Your task to perform on an android device: Go to calendar. Show me events next week Image 0: 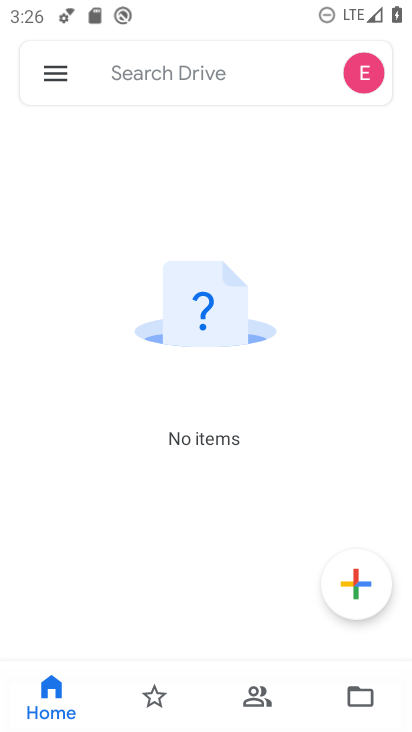
Step 0: press home button
Your task to perform on an android device: Go to calendar. Show me events next week Image 1: 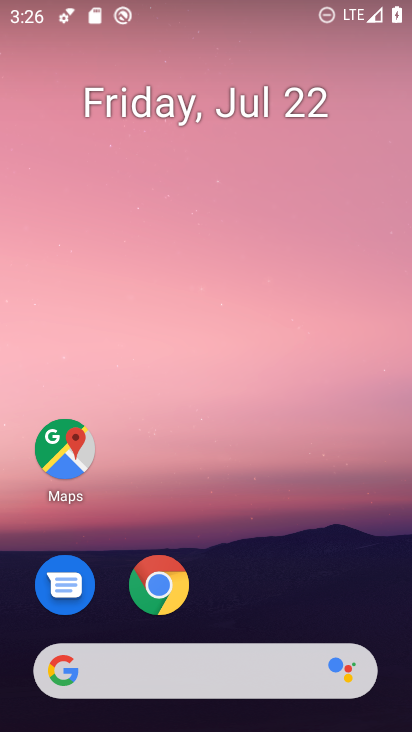
Step 1: drag from (286, 558) to (327, 76)
Your task to perform on an android device: Go to calendar. Show me events next week Image 2: 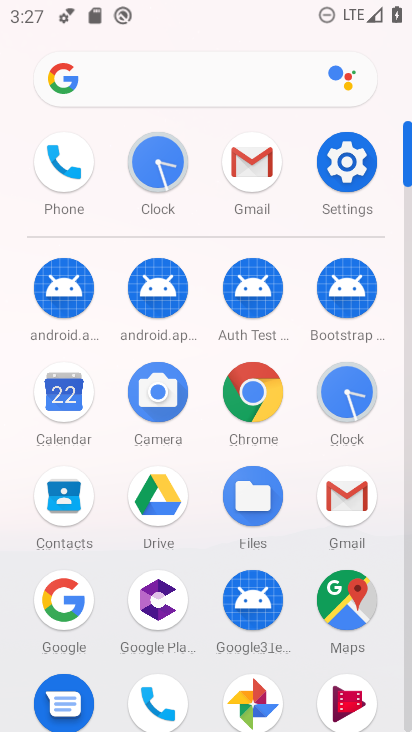
Step 2: click (68, 391)
Your task to perform on an android device: Go to calendar. Show me events next week Image 3: 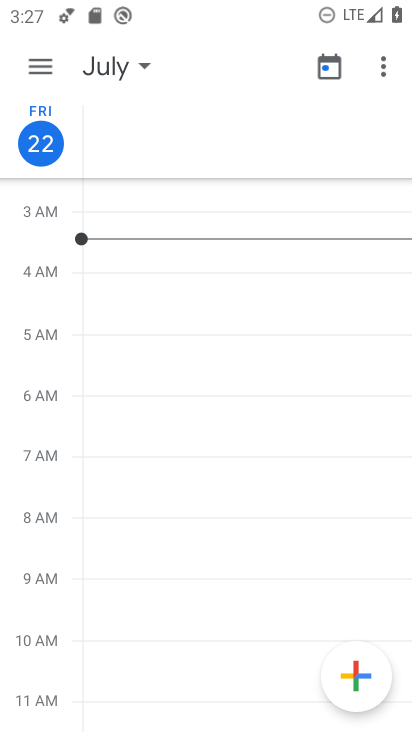
Step 3: click (30, 61)
Your task to perform on an android device: Go to calendar. Show me events next week Image 4: 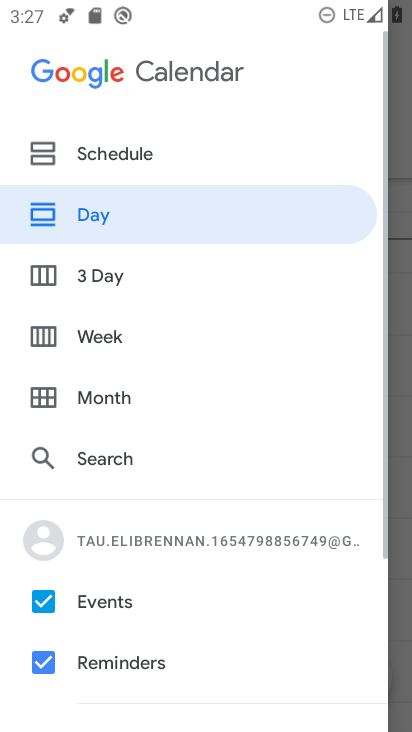
Step 4: click (39, 332)
Your task to perform on an android device: Go to calendar. Show me events next week Image 5: 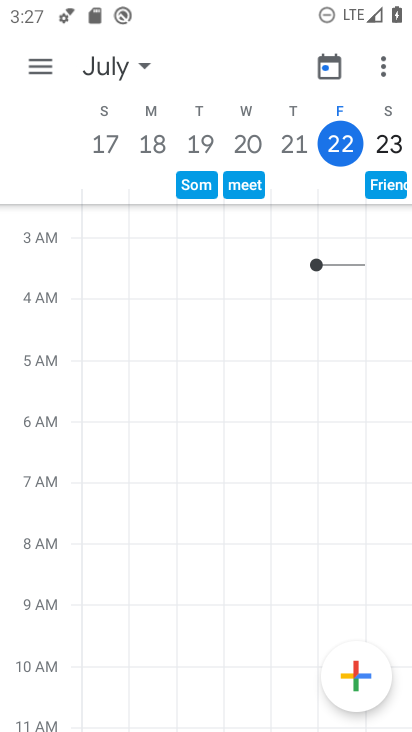
Step 5: task complete